Your task to perform on an android device: Search for flights from Tokyo to Seoul Image 0: 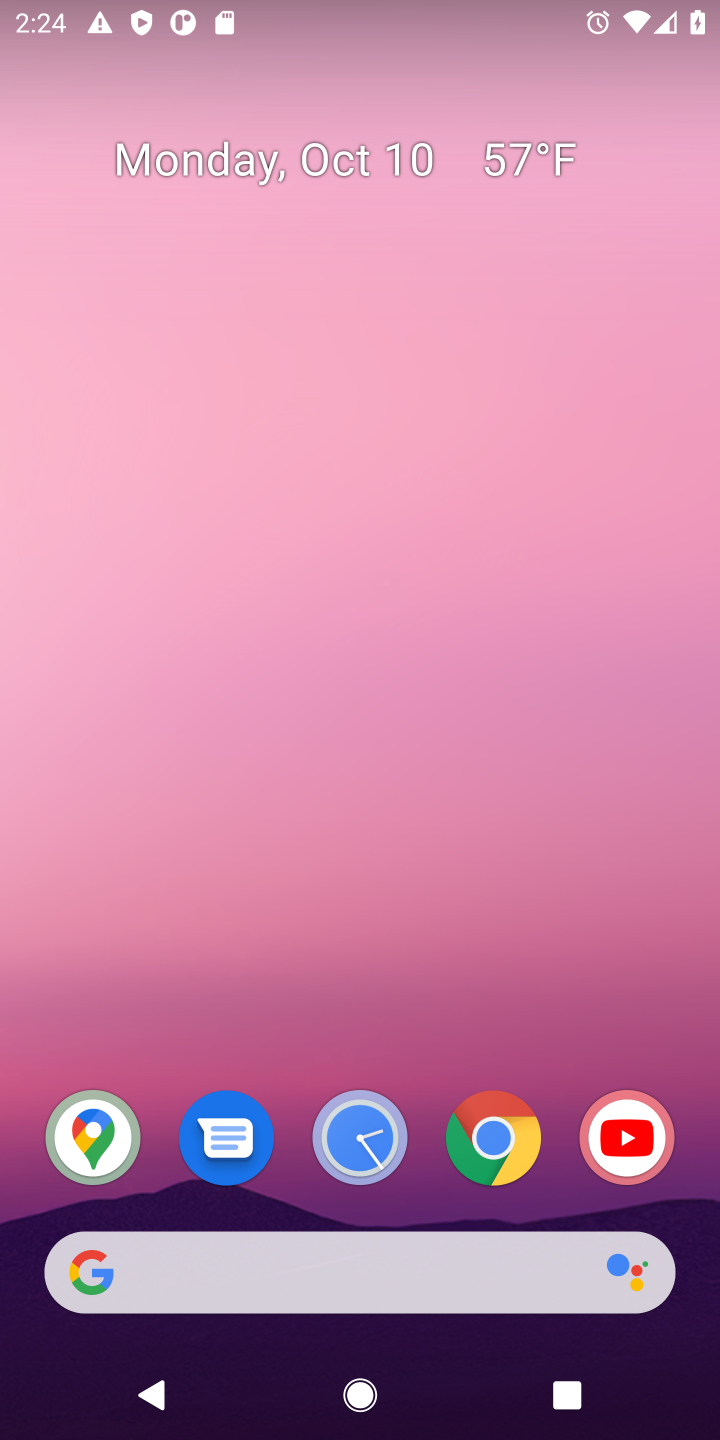
Step 0: click (222, 1278)
Your task to perform on an android device: Search for flights from Tokyo to Seoul Image 1: 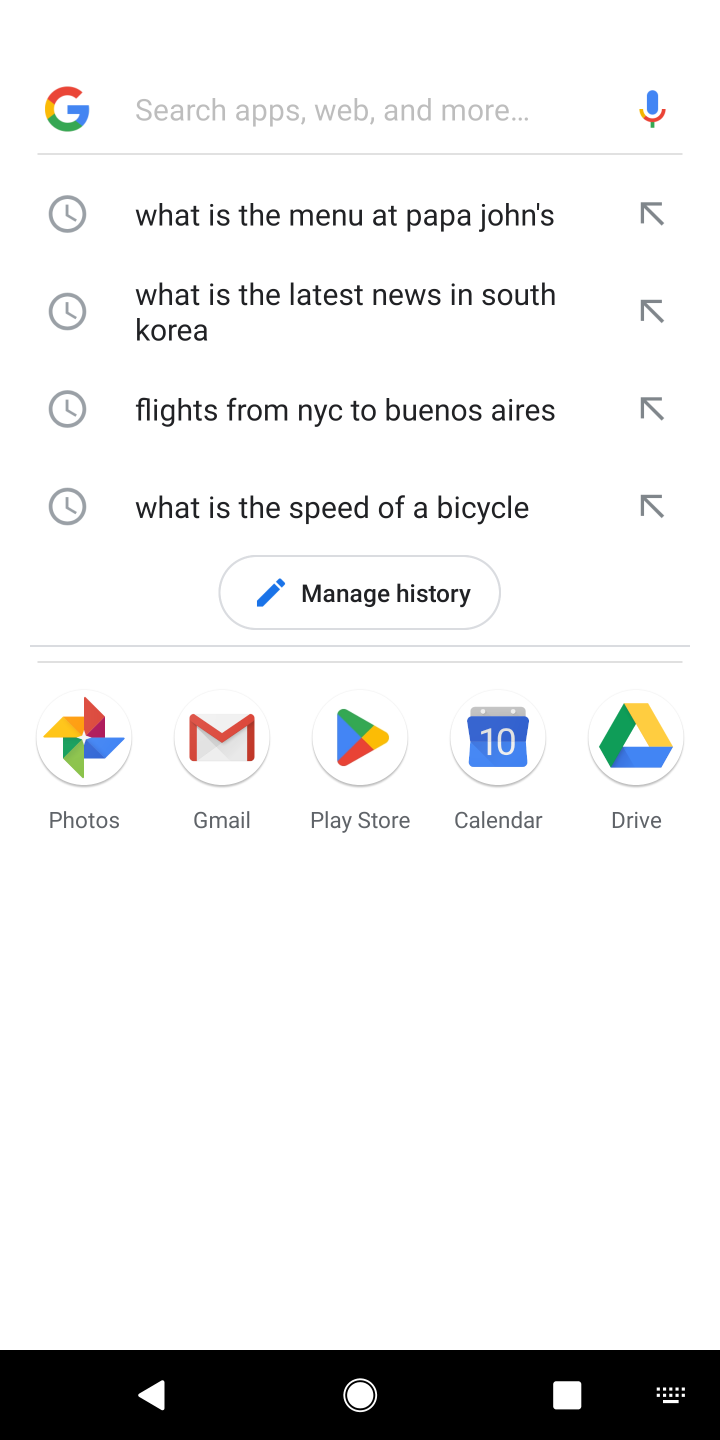
Step 1: type "flights from tokyo to seoul"
Your task to perform on an android device: Search for flights from Tokyo to Seoul Image 2: 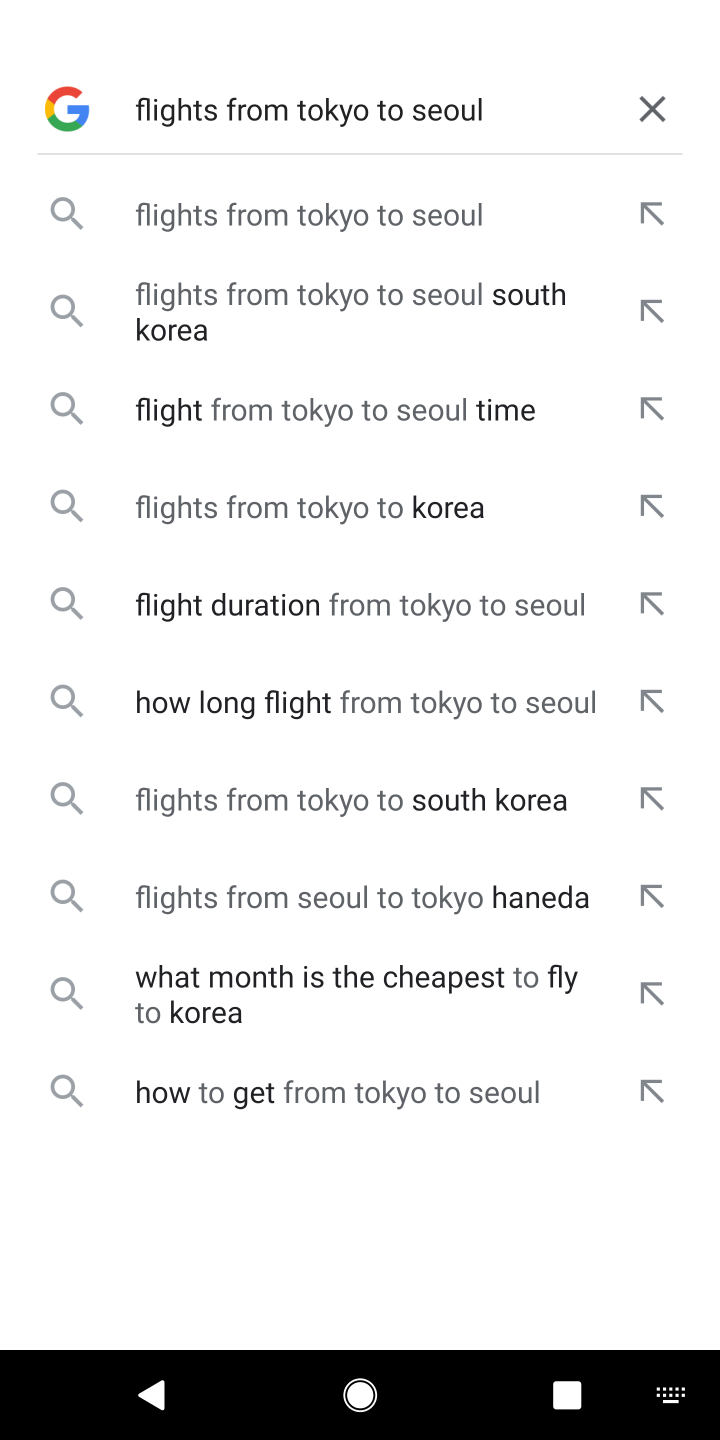
Step 2: click (387, 216)
Your task to perform on an android device: Search for flights from Tokyo to Seoul Image 3: 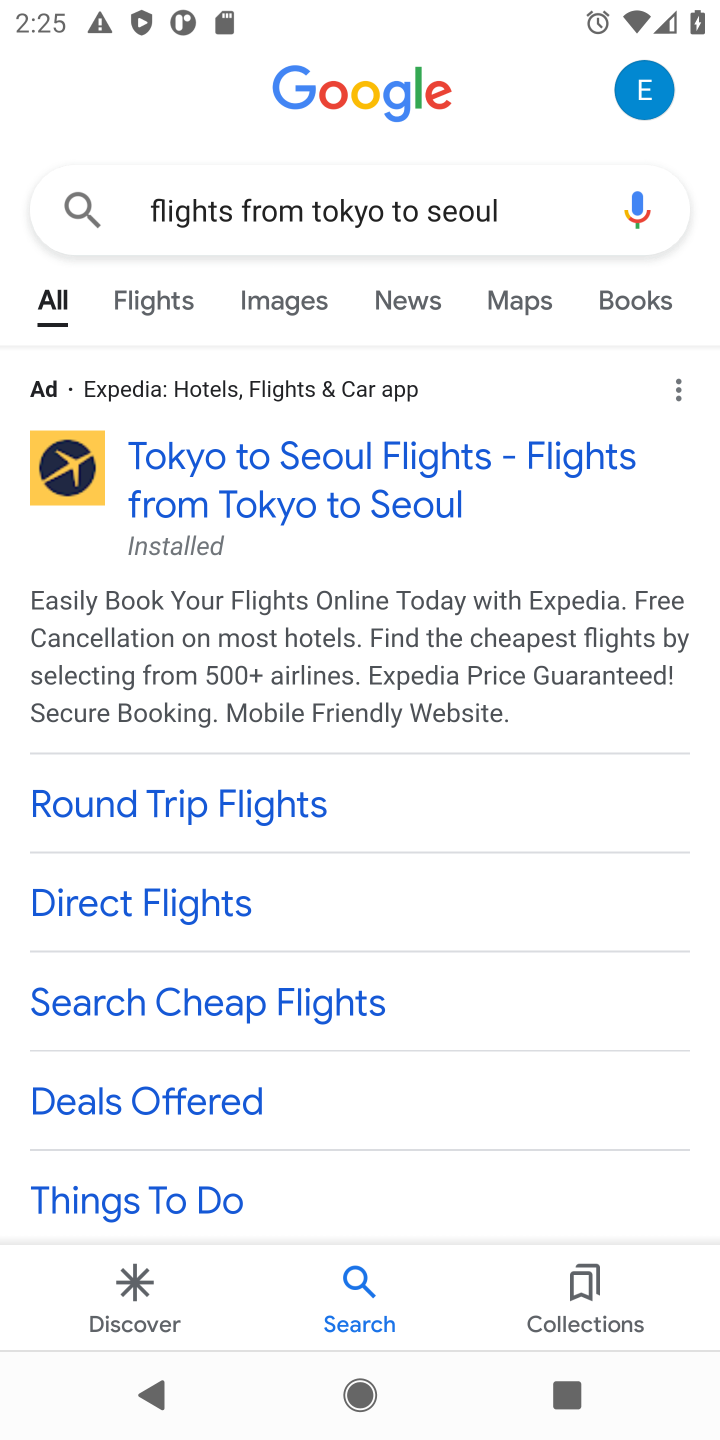
Step 3: click (301, 477)
Your task to perform on an android device: Search for flights from Tokyo to Seoul Image 4: 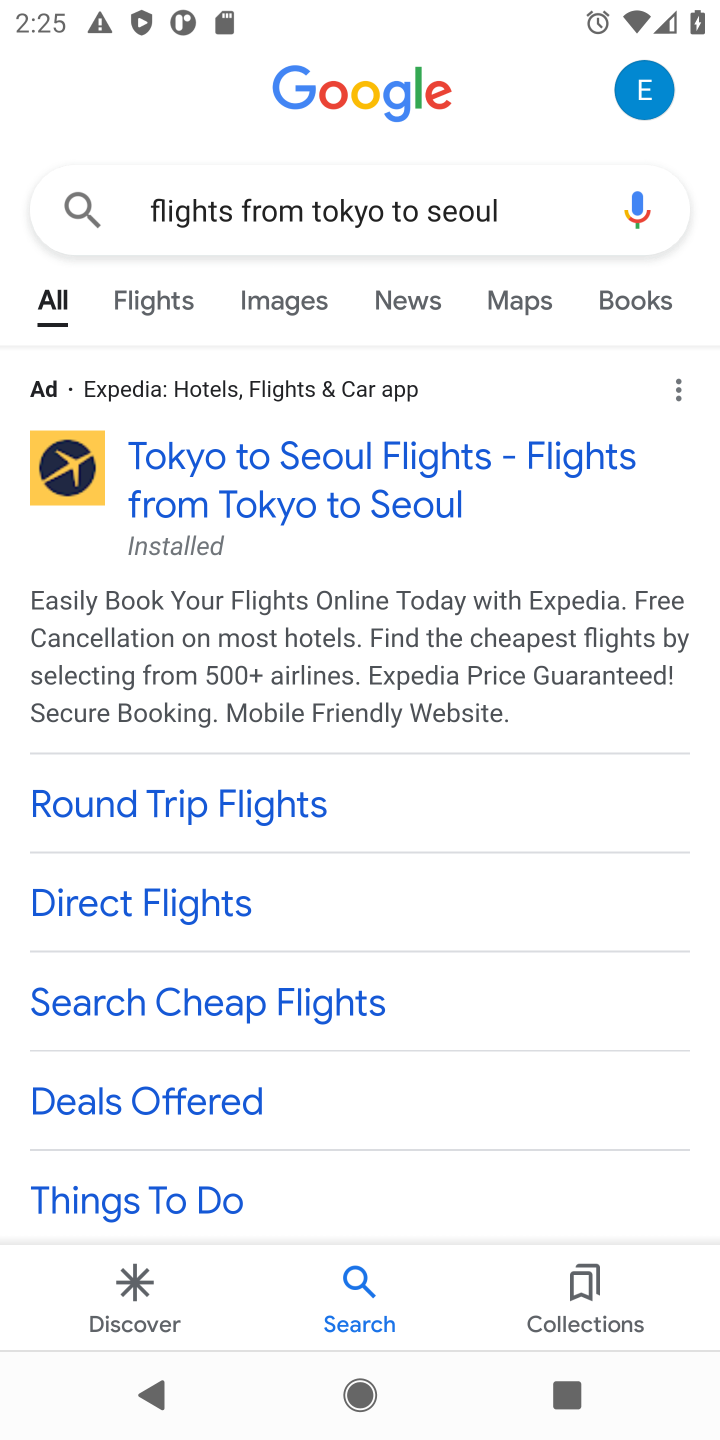
Step 4: click (301, 477)
Your task to perform on an android device: Search for flights from Tokyo to Seoul Image 5: 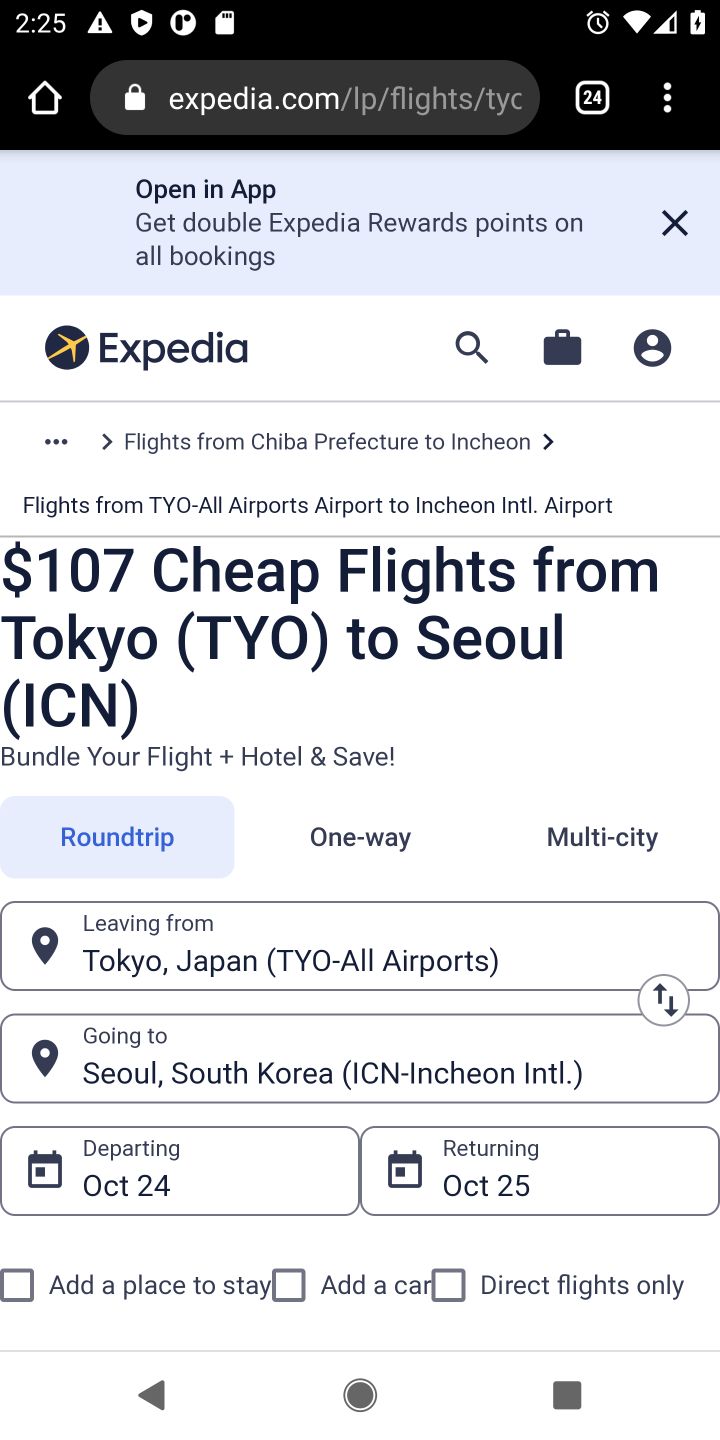
Step 5: drag from (527, 783) to (484, 560)
Your task to perform on an android device: Search for flights from Tokyo to Seoul Image 6: 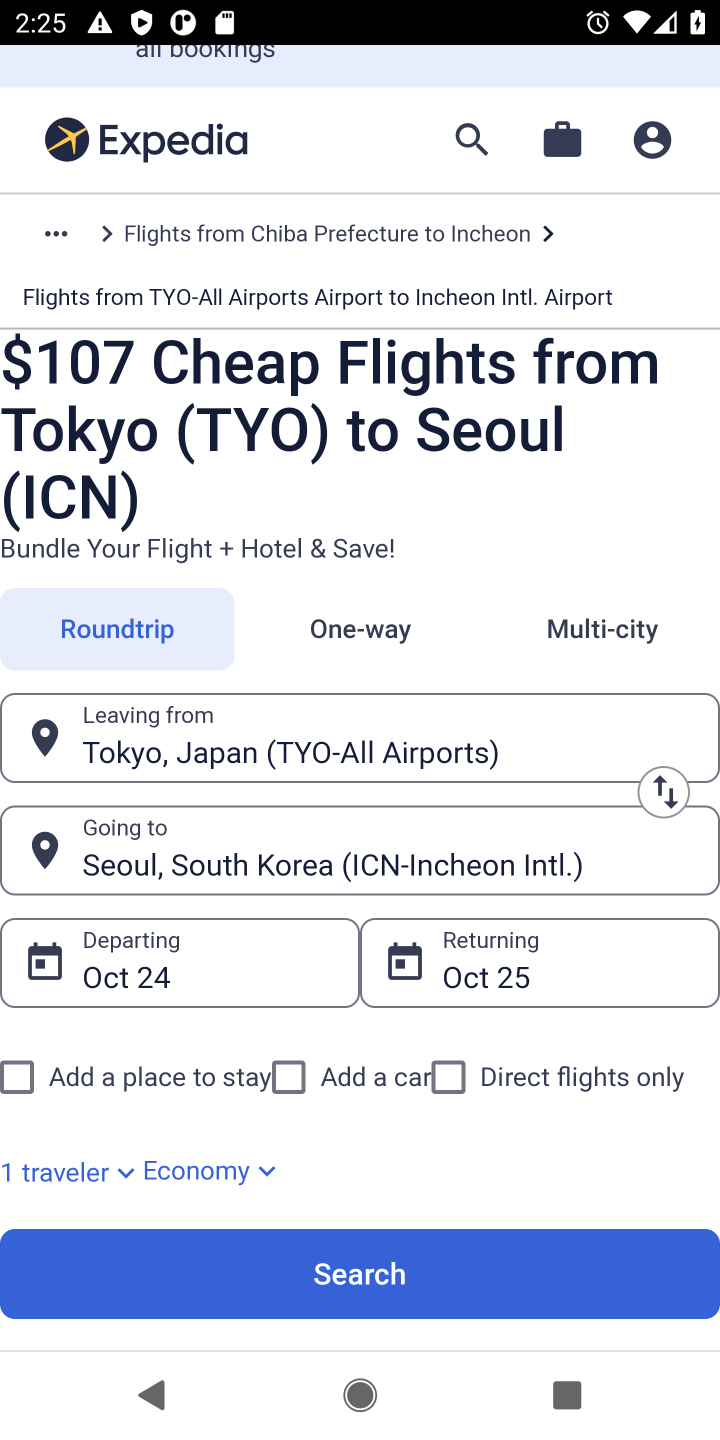
Step 6: click (355, 1296)
Your task to perform on an android device: Search for flights from Tokyo to Seoul Image 7: 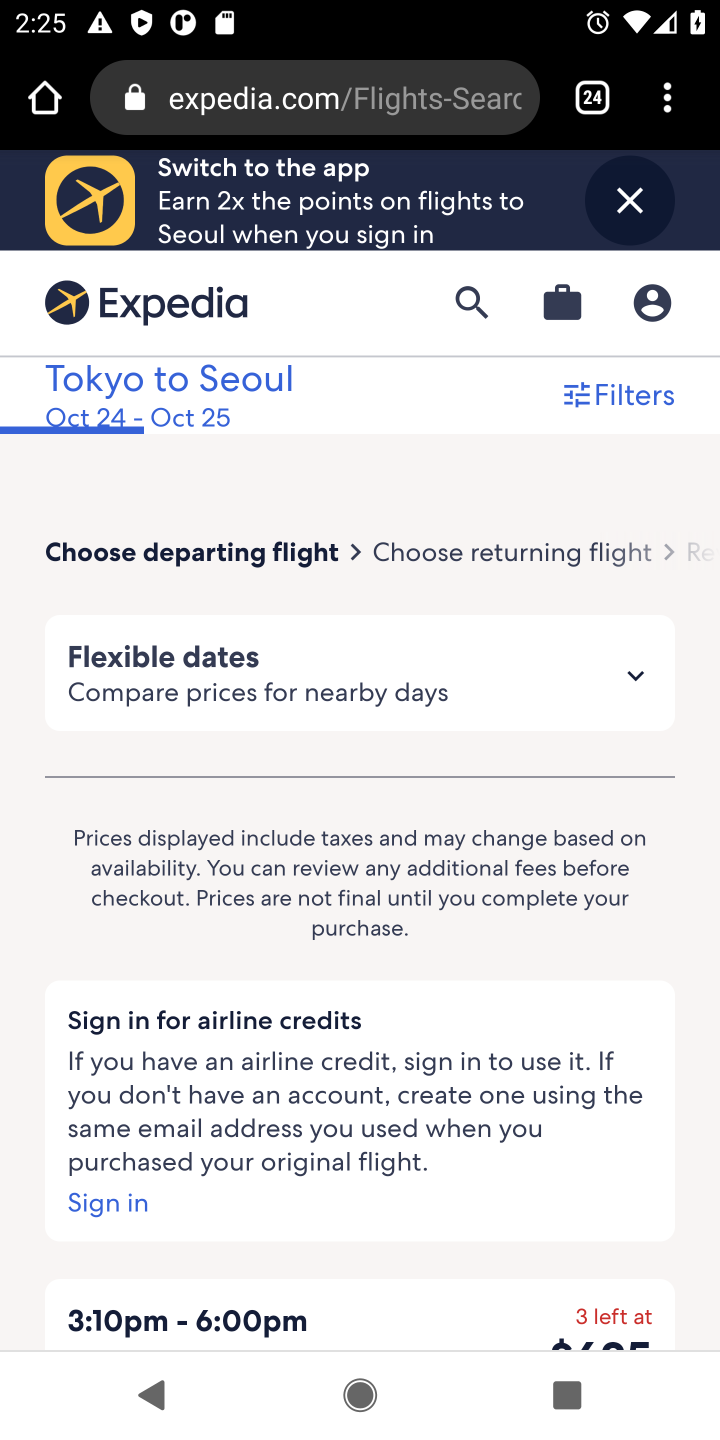
Step 7: task complete